Your task to perform on an android device: turn on priority inbox in the gmail app Image 0: 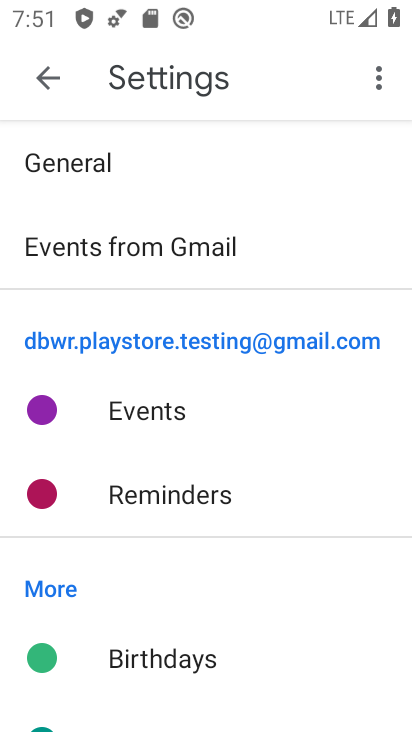
Step 0: press back button
Your task to perform on an android device: turn on priority inbox in the gmail app Image 1: 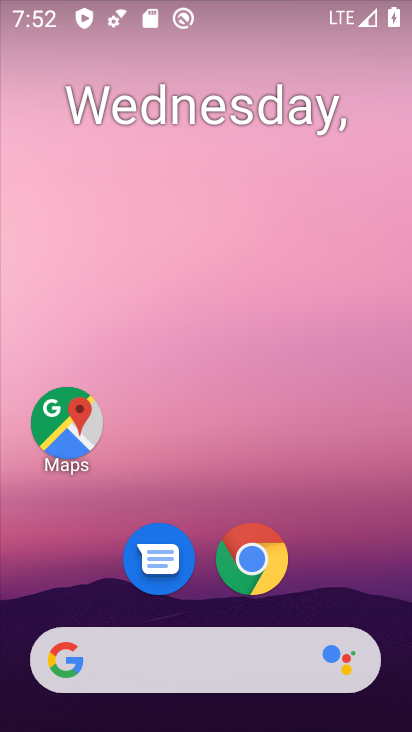
Step 1: drag from (206, 618) to (271, 101)
Your task to perform on an android device: turn on priority inbox in the gmail app Image 2: 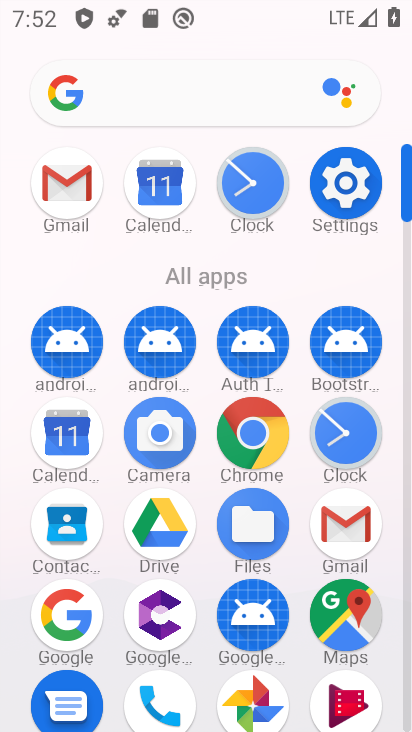
Step 2: click (75, 187)
Your task to perform on an android device: turn on priority inbox in the gmail app Image 3: 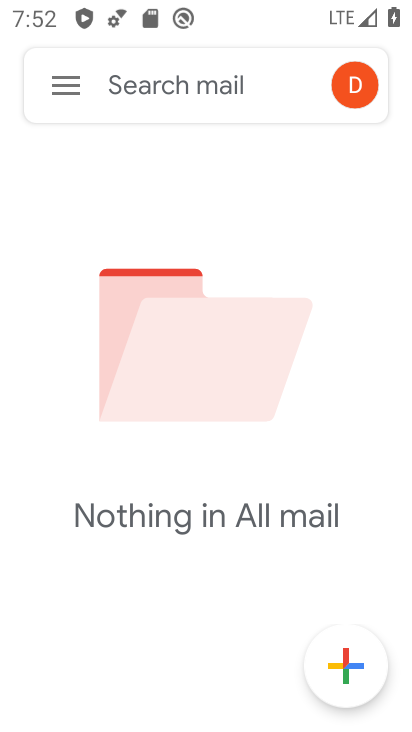
Step 3: click (68, 78)
Your task to perform on an android device: turn on priority inbox in the gmail app Image 4: 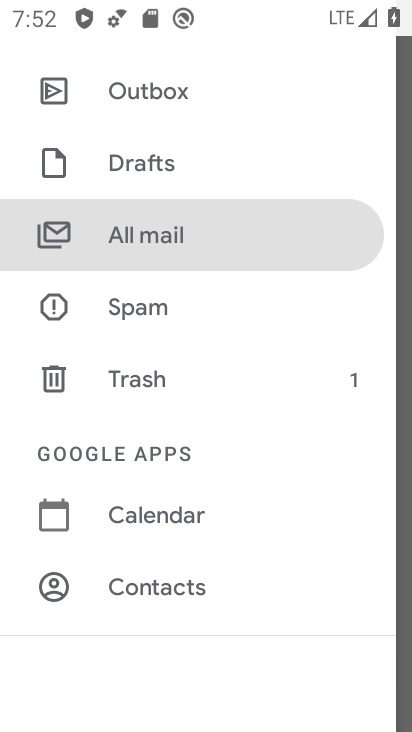
Step 4: drag from (185, 524) to (270, 42)
Your task to perform on an android device: turn on priority inbox in the gmail app Image 5: 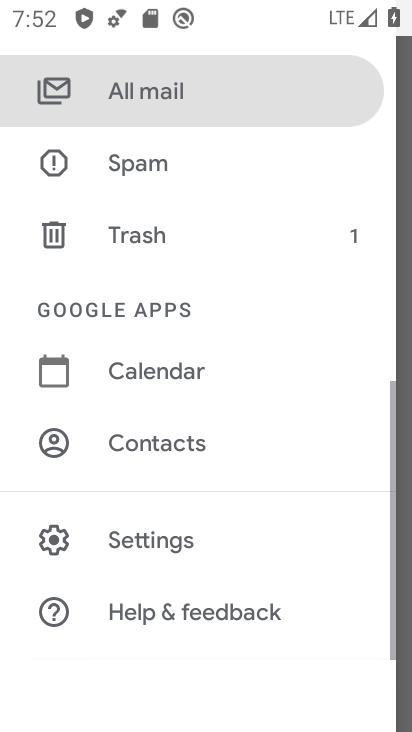
Step 5: click (149, 535)
Your task to perform on an android device: turn on priority inbox in the gmail app Image 6: 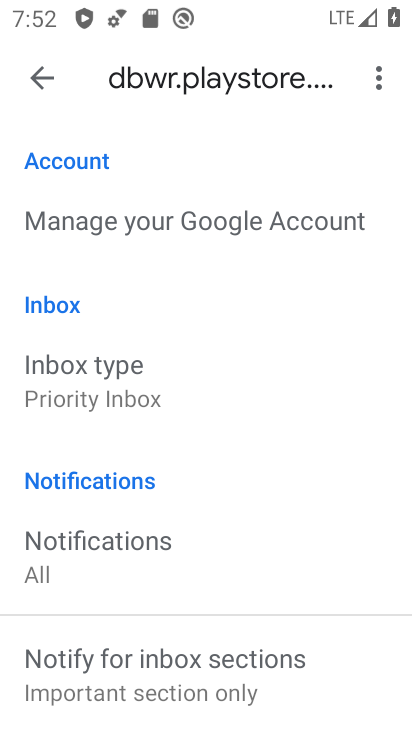
Step 6: click (119, 387)
Your task to perform on an android device: turn on priority inbox in the gmail app Image 7: 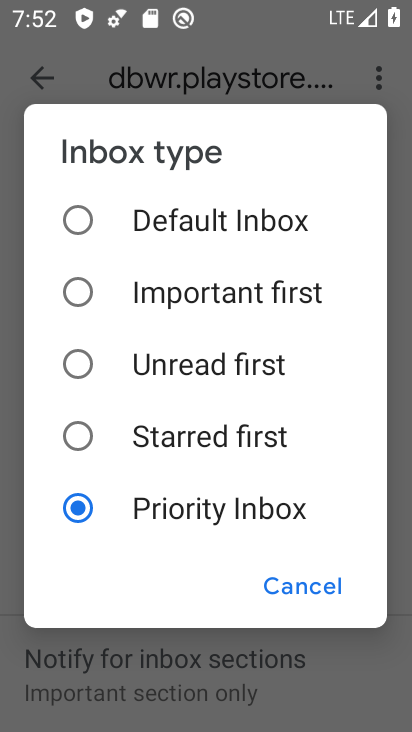
Step 7: task complete